Your task to perform on an android device: turn on the 24-hour format for clock Image 0: 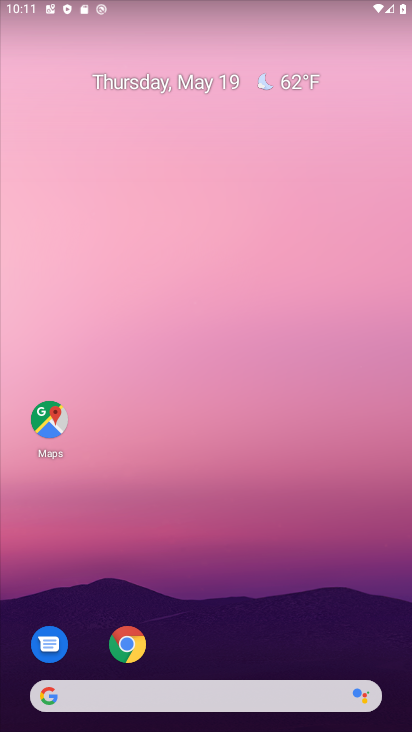
Step 0: drag from (232, 625) to (210, 24)
Your task to perform on an android device: turn on the 24-hour format for clock Image 1: 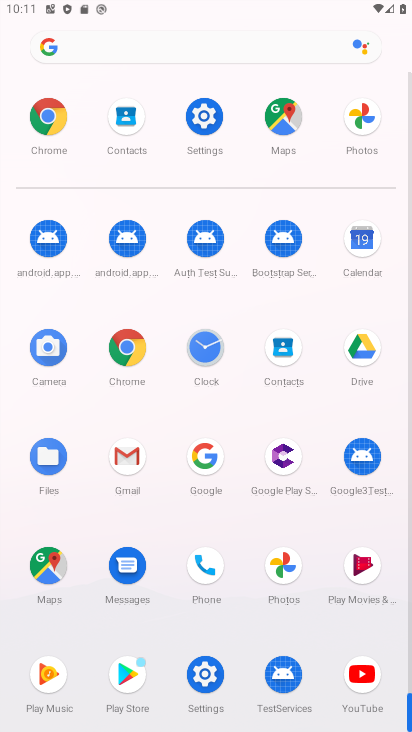
Step 1: click (203, 358)
Your task to perform on an android device: turn on the 24-hour format for clock Image 2: 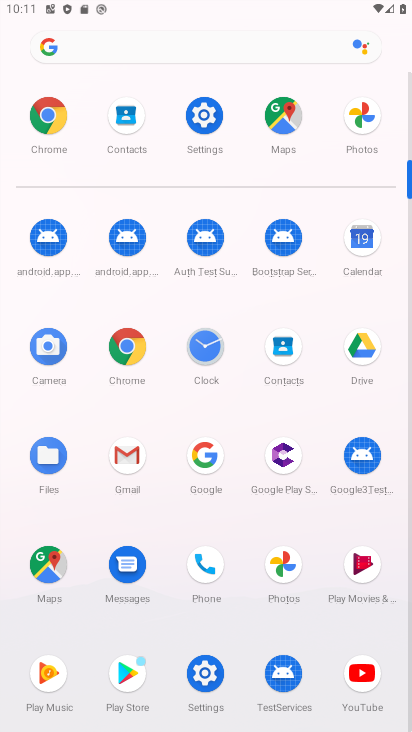
Step 2: click (208, 347)
Your task to perform on an android device: turn on the 24-hour format for clock Image 3: 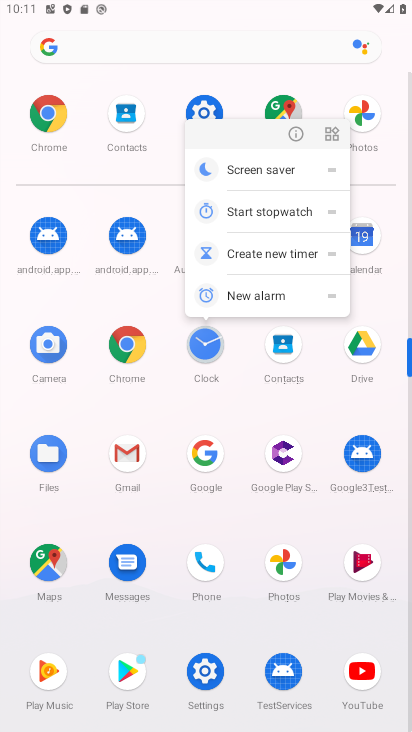
Step 3: click (205, 345)
Your task to perform on an android device: turn on the 24-hour format for clock Image 4: 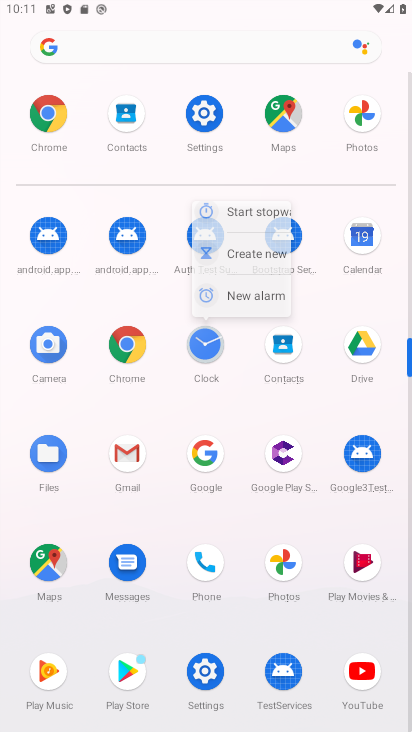
Step 4: click (203, 345)
Your task to perform on an android device: turn on the 24-hour format for clock Image 5: 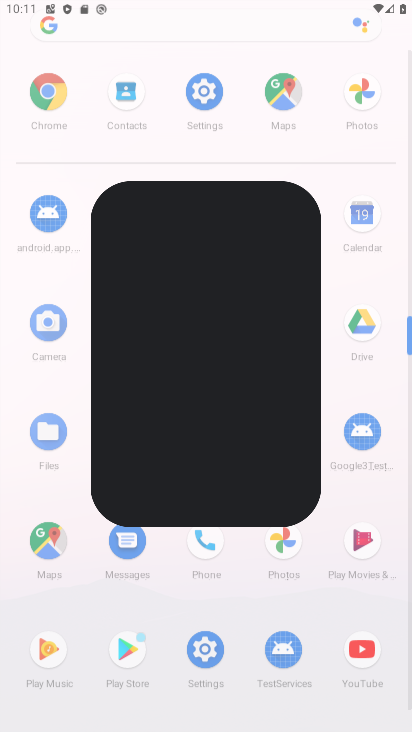
Step 5: click (202, 344)
Your task to perform on an android device: turn on the 24-hour format for clock Image 6: 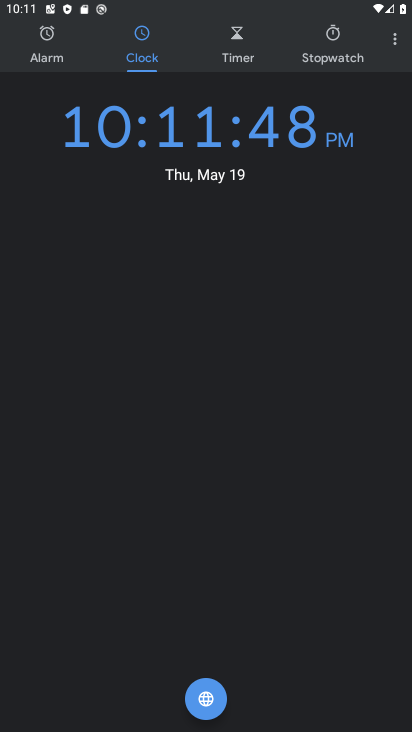
Step 6: click (202, 344)
Your task to perform on an android device: turn on the 24-hour format for clock Image 7: 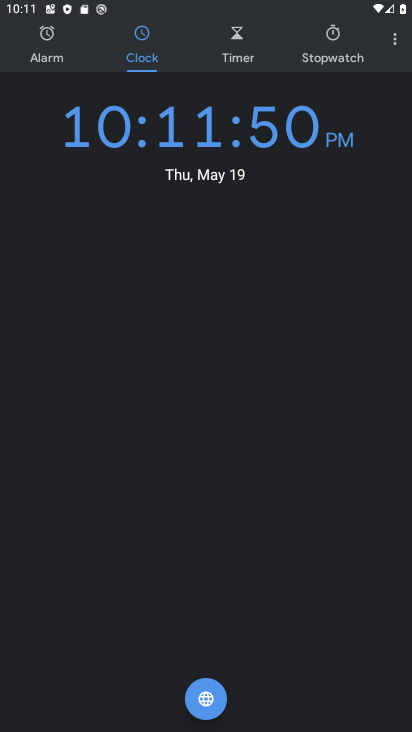
Step 7: click (386, 38)
Your task to perform on an android device: turn on the 24-hour format for clock Image 8: 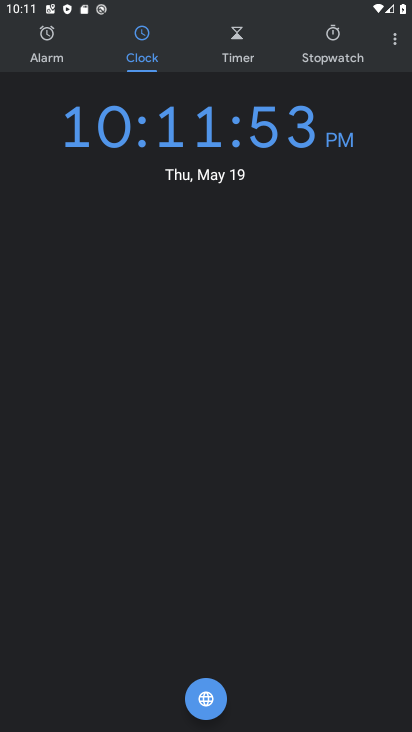
Step 8: click (380, 77)
Your task to perform on an android device: turn on the 24-hour format for clock Image 9: 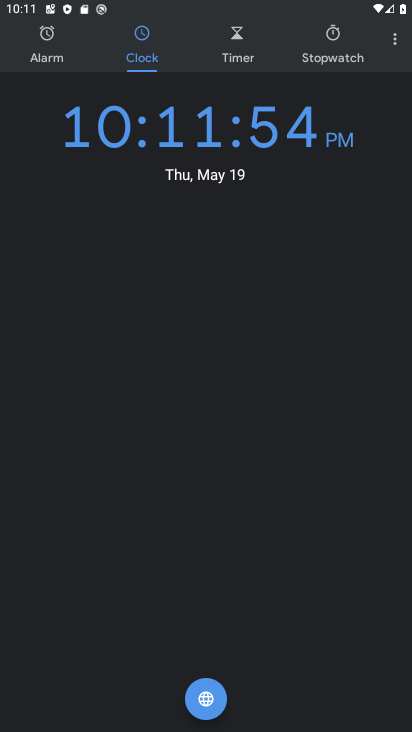
Step 9: click (380, 77)
Your task to perform on an android device: turn on the 24-hour format for clock Image 10: 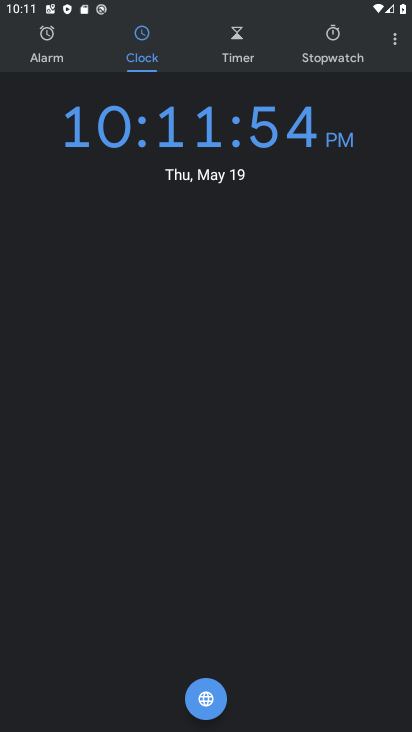
Step 10: click (394, 43)
Your task to perform on an android device: turn on the 24-hour format for clock Image 11: 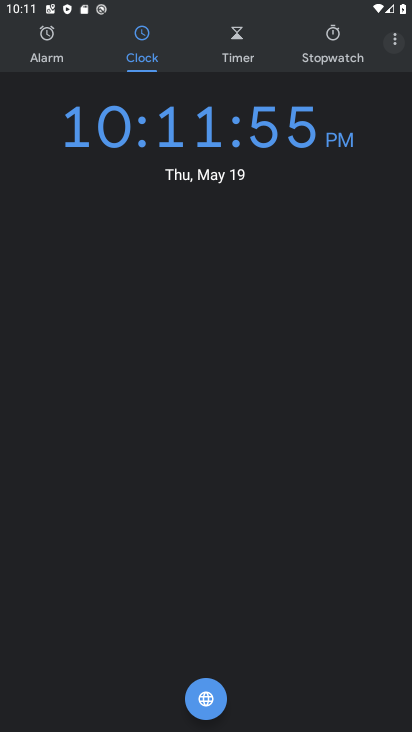
Step 11: click (394, 43)
Your task to perform on an android device: turn on the 24-hour format for clock Image 12: 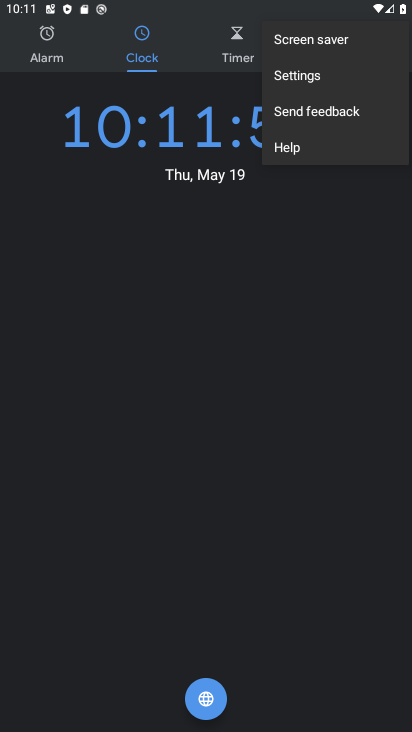
Step 12: click (394, 43)
Your task to perform on an android device: turn on the 24-hour format for clock Image 13: 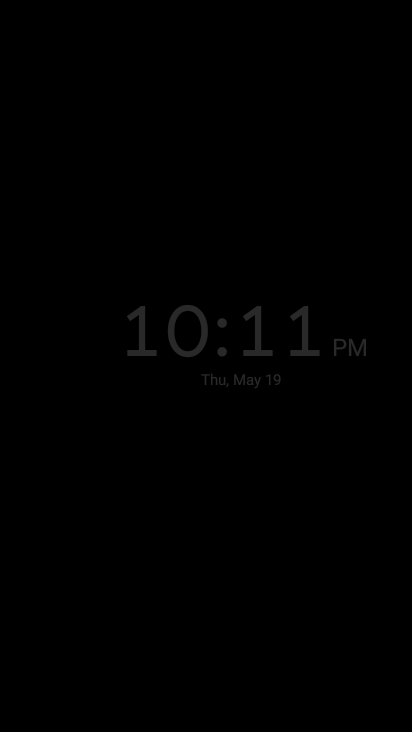
Step 13: click (309, 75)
Your task to perform on an android device: turn on the 24-hour format for clock Image 14: 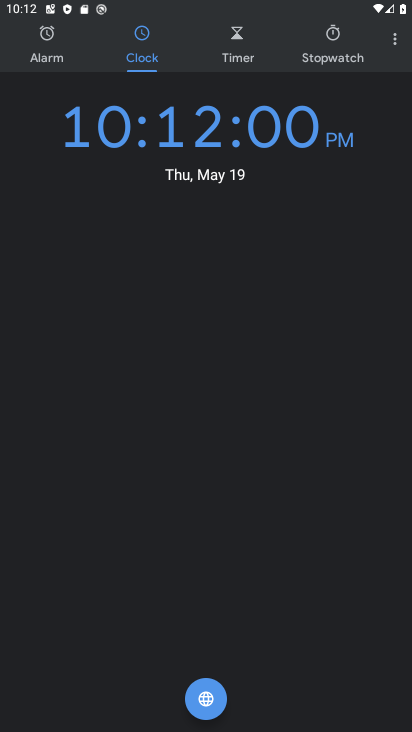
Step 14: click (390, 46)
Your task to perform on an android device: turn on the 24-hour format for clock Image 15: 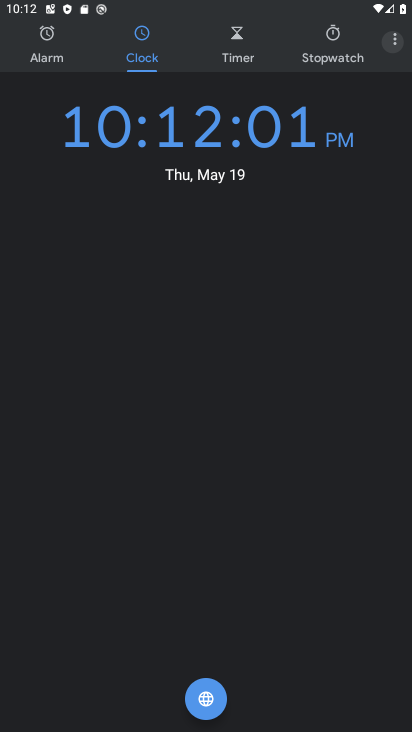
Step 15: drag from (393, 44) to (301, 77)
Your task to perform on an android device: turn on the 24-hour format for clock Image 16: 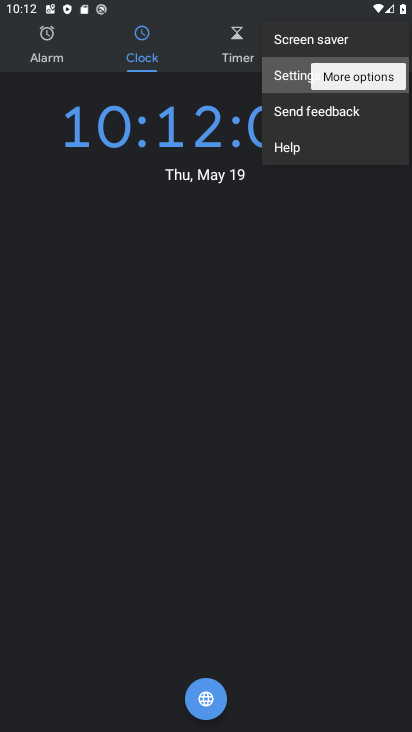
Step 16: click (302, 77)
Your task to perform on an android device: turn on the 24-hour format for clock Image 17: 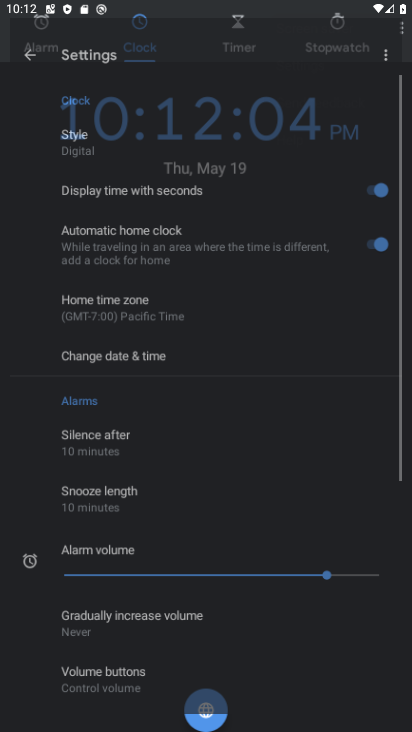
Step 17: click (302, 77)
Your task to perform on an android device: turn on the 24-hour format for clock Image 18: 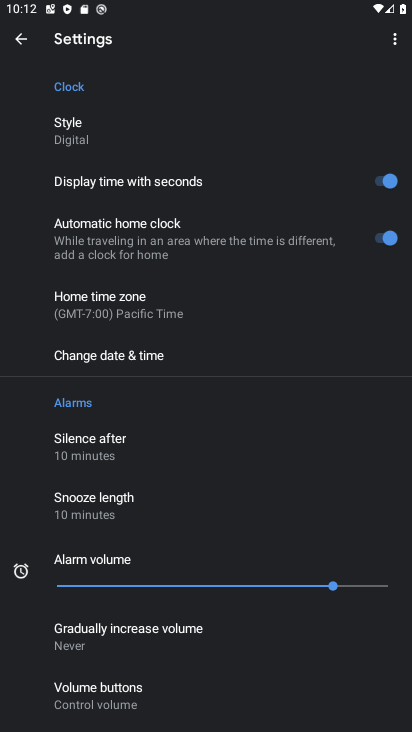
Step 18: click (99, 350)
Your task to perform on an android device: turn on the 24-hour format for clock Image 19: 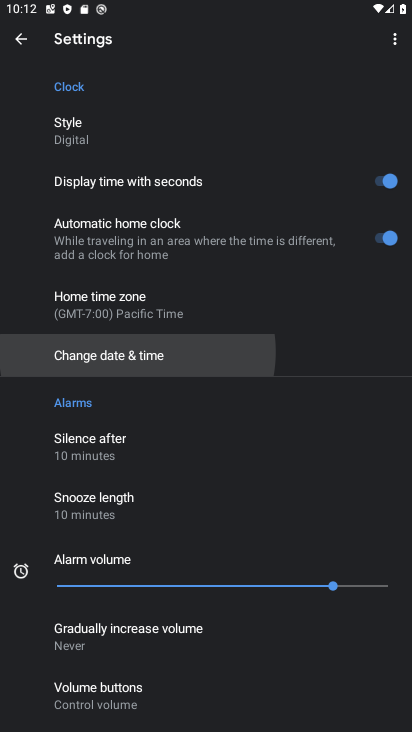
Step 19: click (98, 351)
Your task to perform on an android device: turn on the 24-hour format for clock Image 20: 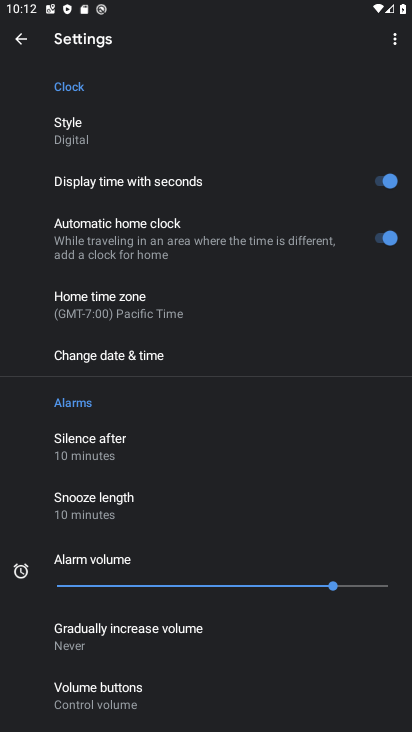
Step 20: click (98, 351)
Your task to perform on an android device: turn on the 24-hour format for clock Image 21: 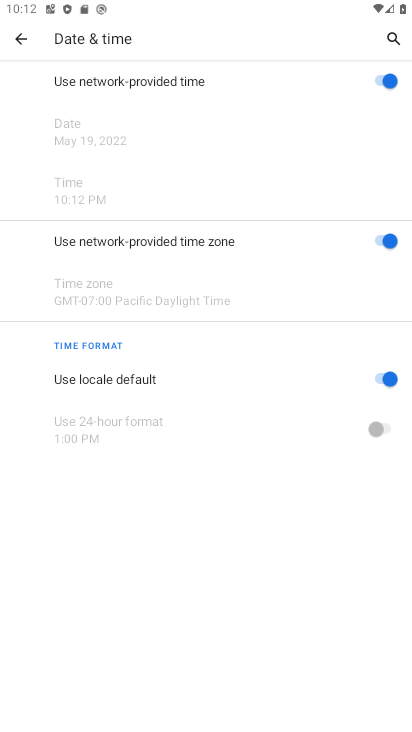
Step 21: click (390, 377)
Your task to perform on an android device: turn on the 24-hour format for clock Image 22: 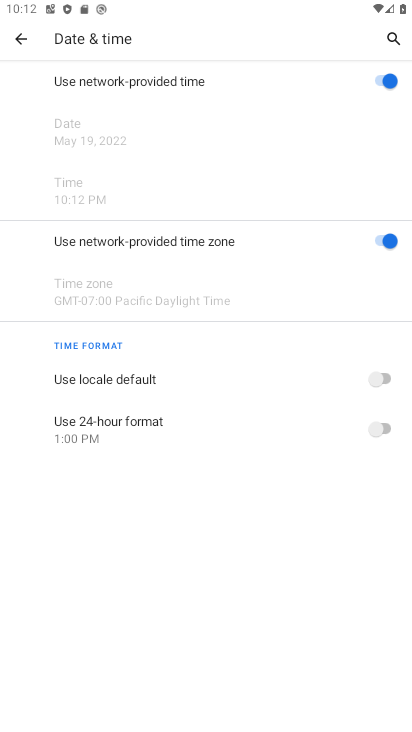
Step 22: click (379, 421)
Your task to perform on an android device: turn on the 24-hour format for clock Image 23: 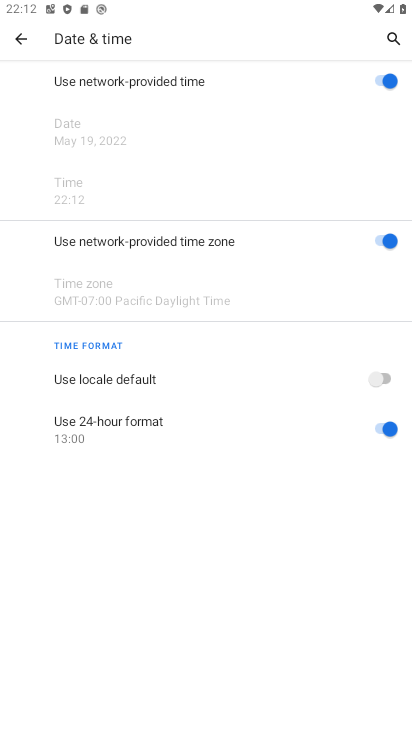
Step 23: task complete